Your task to perform on an android device: Go to wifi settings Image 0: 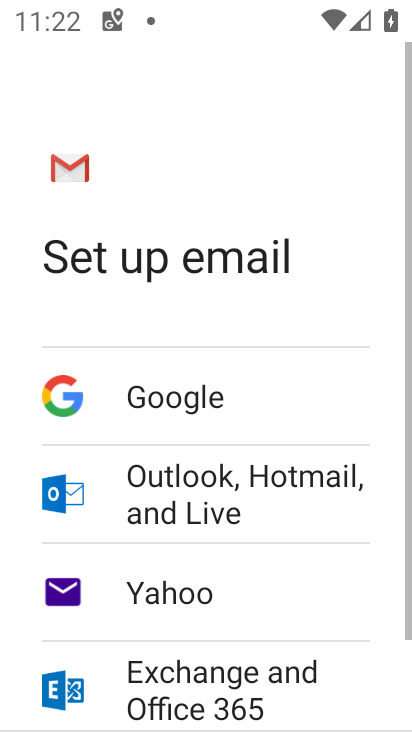
Step 0: press home button
Your task to perform on an android device: Go to wifi settings Image 1: 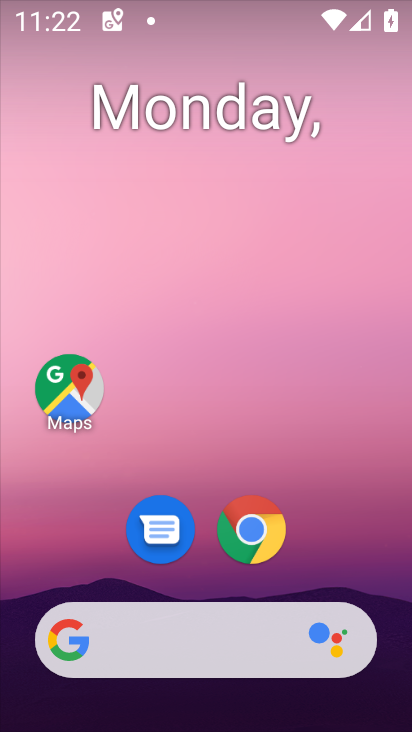
Step 1: drag from (221, 675) to (187, 181)
Your task to perform on an android device: Go to wifi settings Image 2: 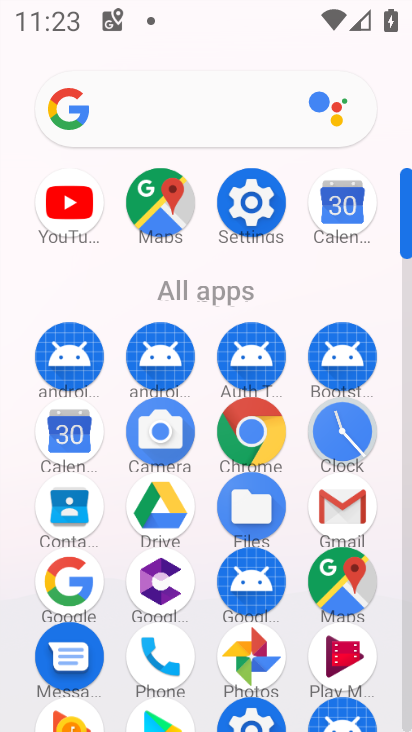
Step 2: click (246, 218)
Your task to perform on an android device: Go to wifi settings Image 3: 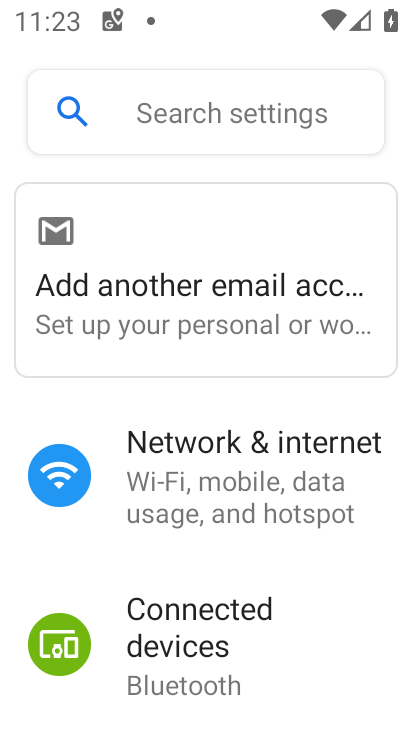
Step 3: click (190, 430)
Your task to perform on an android device: Go to wifi settings Image 4: 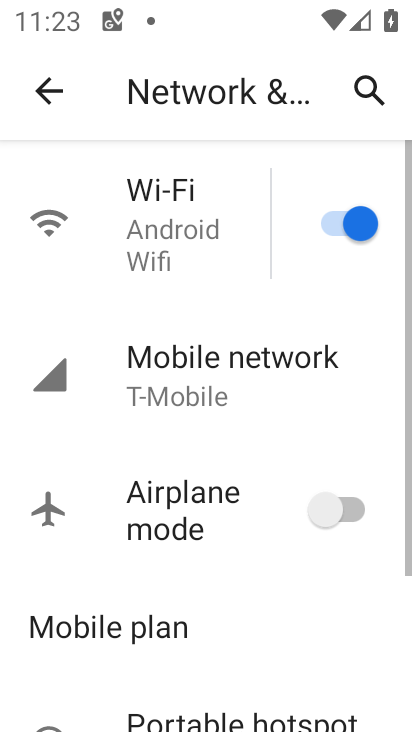
Step 4: click (185, 242)
Your task to perform on an android device: Go to wifi settings Image 5: 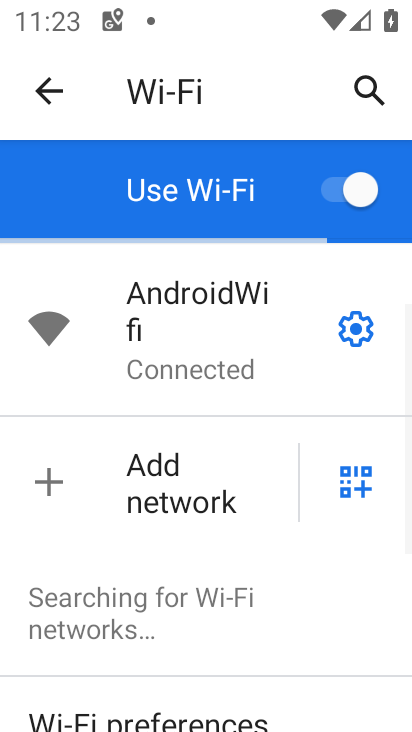
Step 5: task complete